Your task to perform on an android device: Show me popular games on the Play Store Image 0: 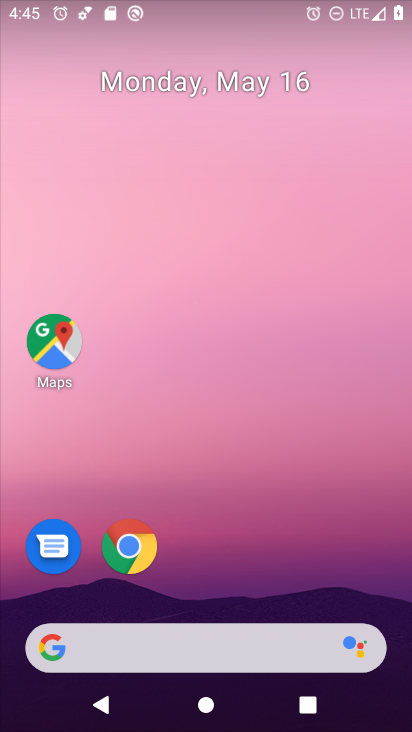
Step 0: drag from (353, 589) to (351, 163)
Your task to perform on an android device: Show me popular games on the Play Store Image 1: 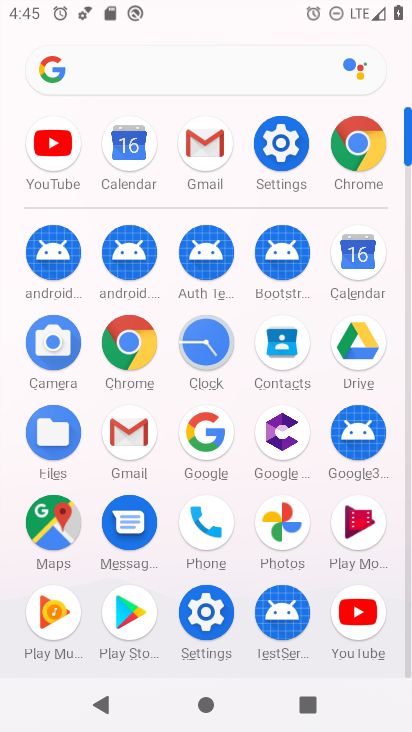
Step 1: click (148, 630)
Your task to perform on an android device: Show me popular games on the Play Store Image 2: 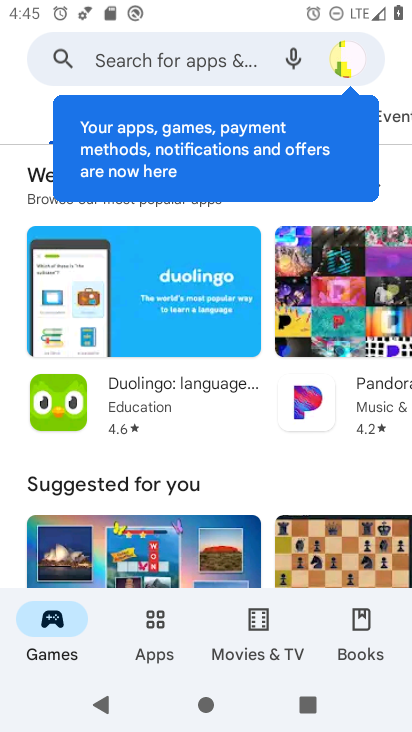
Step 2: task complete